Your task to perform on an android device: Open Google Chrome and open the bookmarks view Image 0: 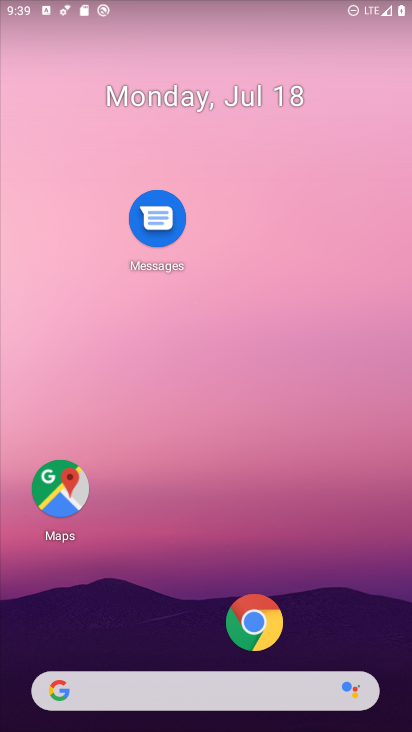
Step 0: drag from (320, 666) to (352, 200)
Your task to perform on an android device: Open Google Chrome and open the bookmarks view Image 1: 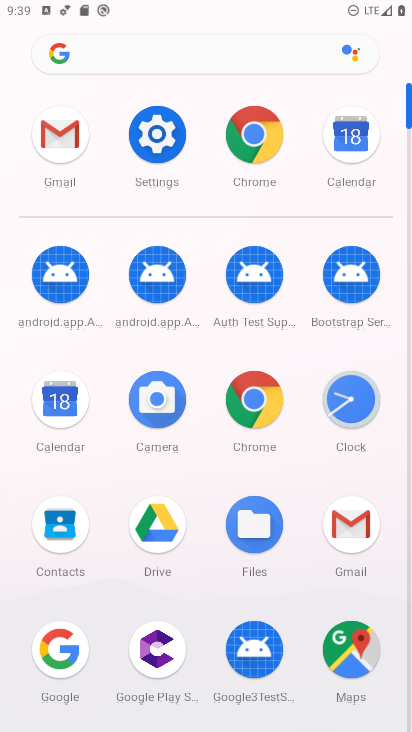
Step 1: click (262, 408)
Your task to perform on an android device: Open Google Chrome and open the bookmarks view Image 2: 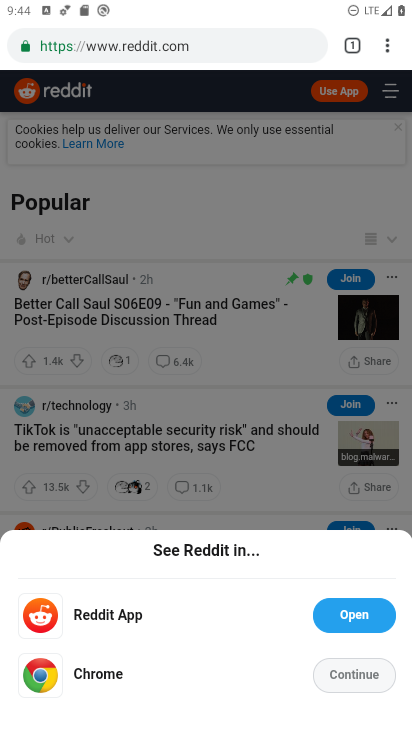
Step 2: press home button
Your task to perform on an android device: Open Google Chrome and open the bookmarks view Image 3: 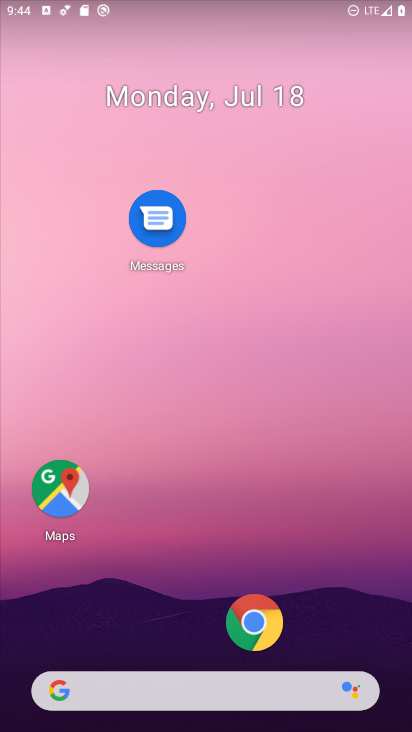
Step 3: drag from (317, 674) to (315, 129)
Your task to perform on an android device: Open Google Chrome and open the bookmarks view Image 4: 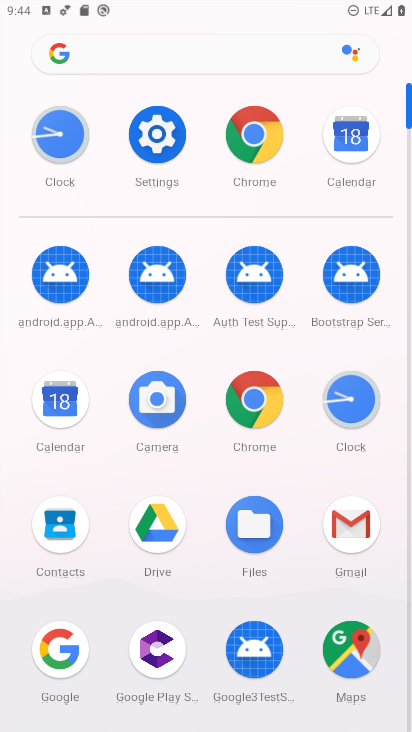
Step 4: click (240, 176)
Your task to perform on an android device: Open Google Chrome and open the bookmarks view Image 5: 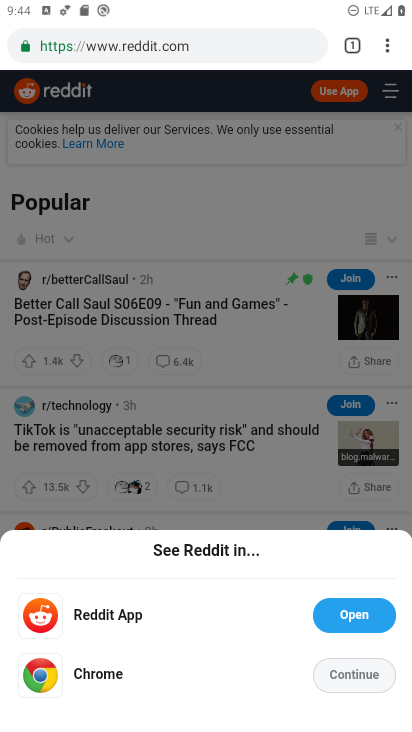
Step 5: click (388, 52)
Your task to perform on an android device: Open Google Chrome and open the bookmarks view Image 6: 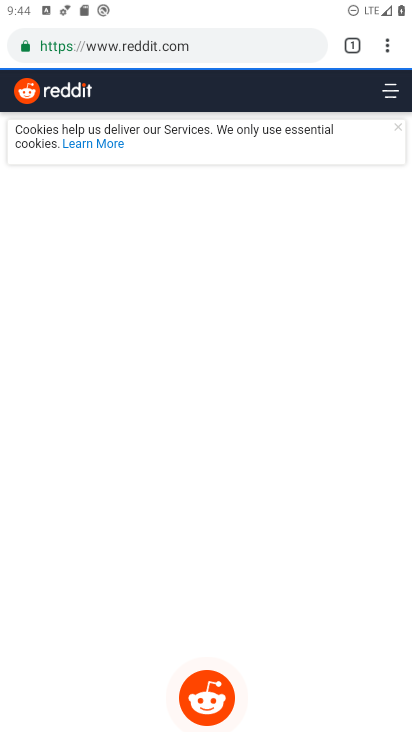
Step 6: click (387, 52)
Your task to perform on an android device: Open Google Chrome and open the bookmarks view Image 7: 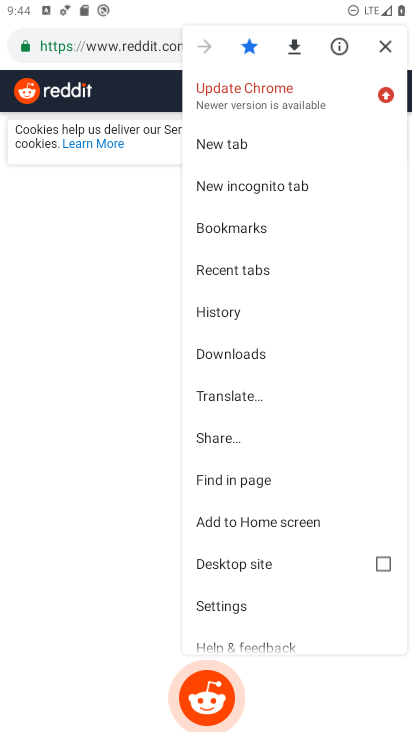
Step 7: click (243, 608)
Your task to perform on an android device: Open Google Chrome and open the bookmarks view Image 8: 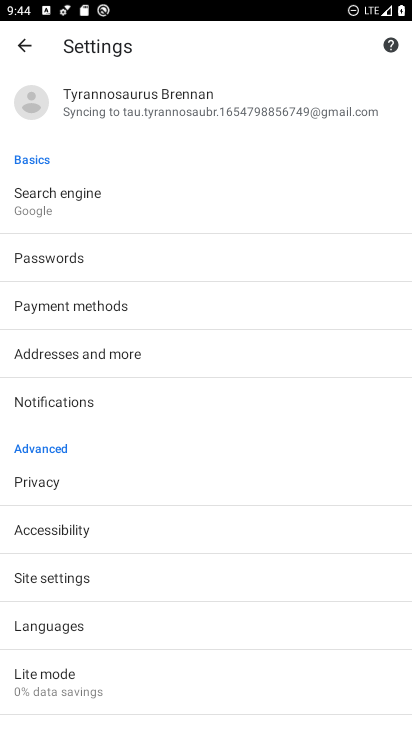
Step 8: click (20, 49)
Your task to perform on an android device: Open Google Chrome and open the bookmarks view Image 9: 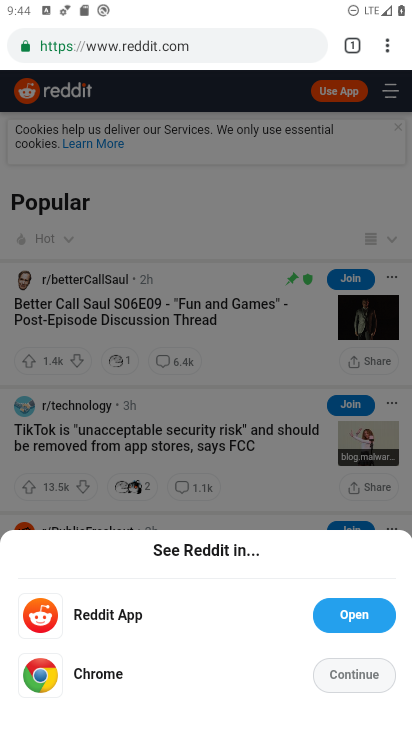
Step 9: click (391, 44)
Your task to perform on an android device: Open Google Chrome and open the bookmarks view Image 10: 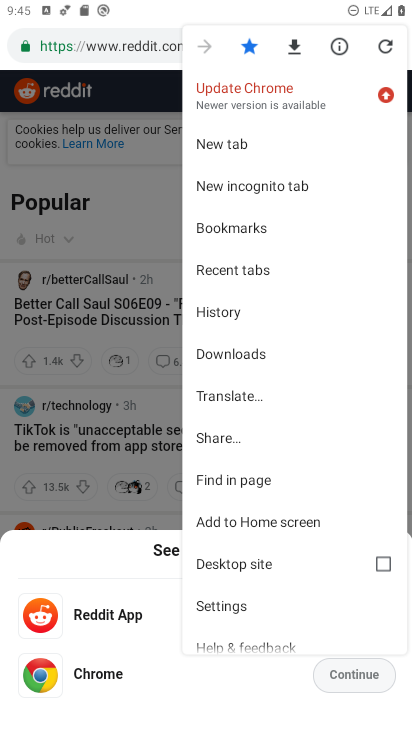
Step 10: click (248, 220)
Your task to perform on an android device: Open Google Chrome and open the bookmarks view Image 11: 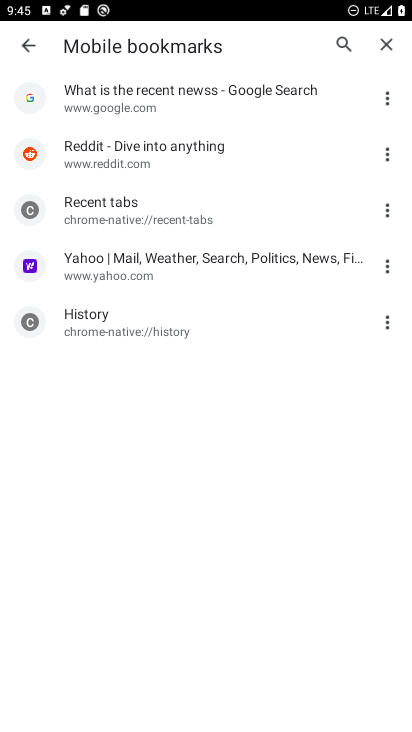
Step 11: task complete